Your task to perform on an android device: Go to Android settings Image 0: 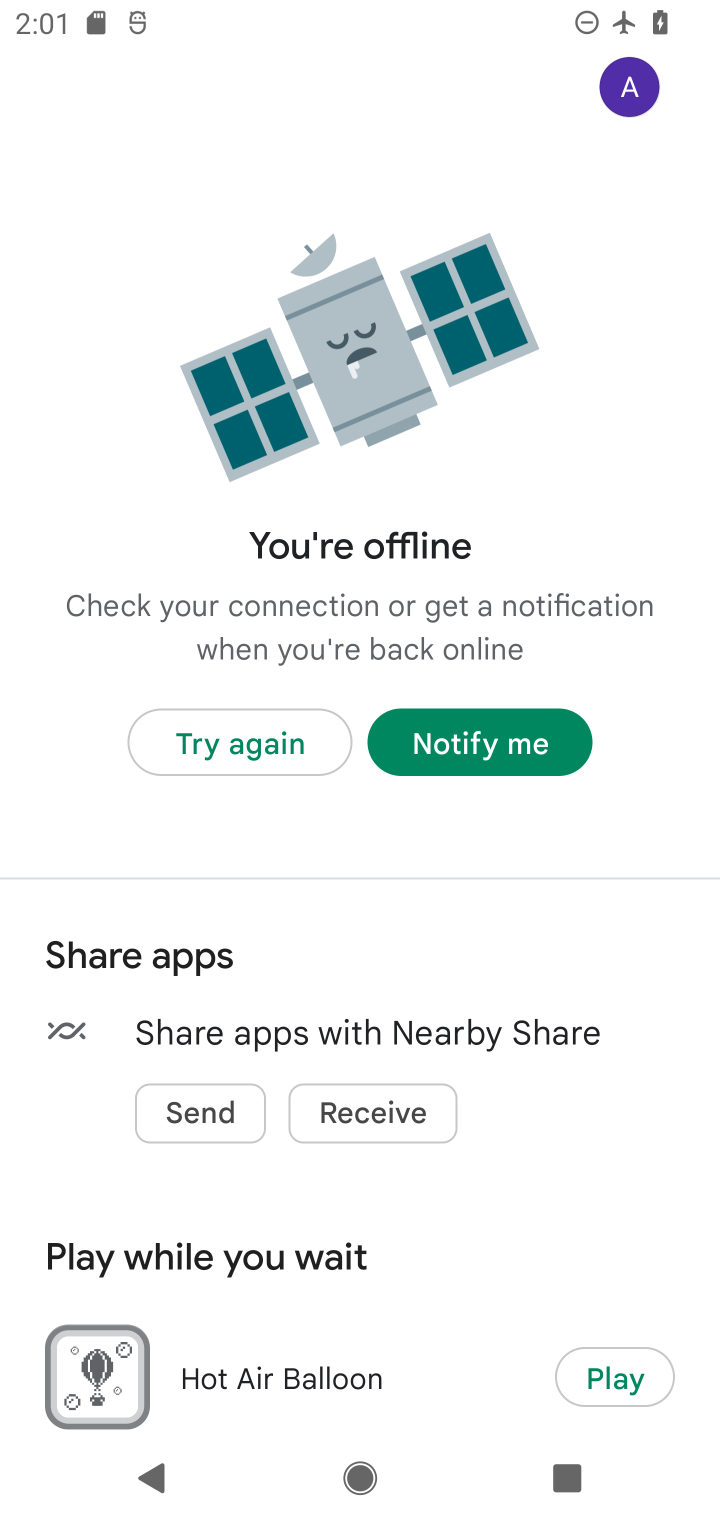
Step 0: press home button
Your task to perform on an android device: Go to Android settings Image 1: 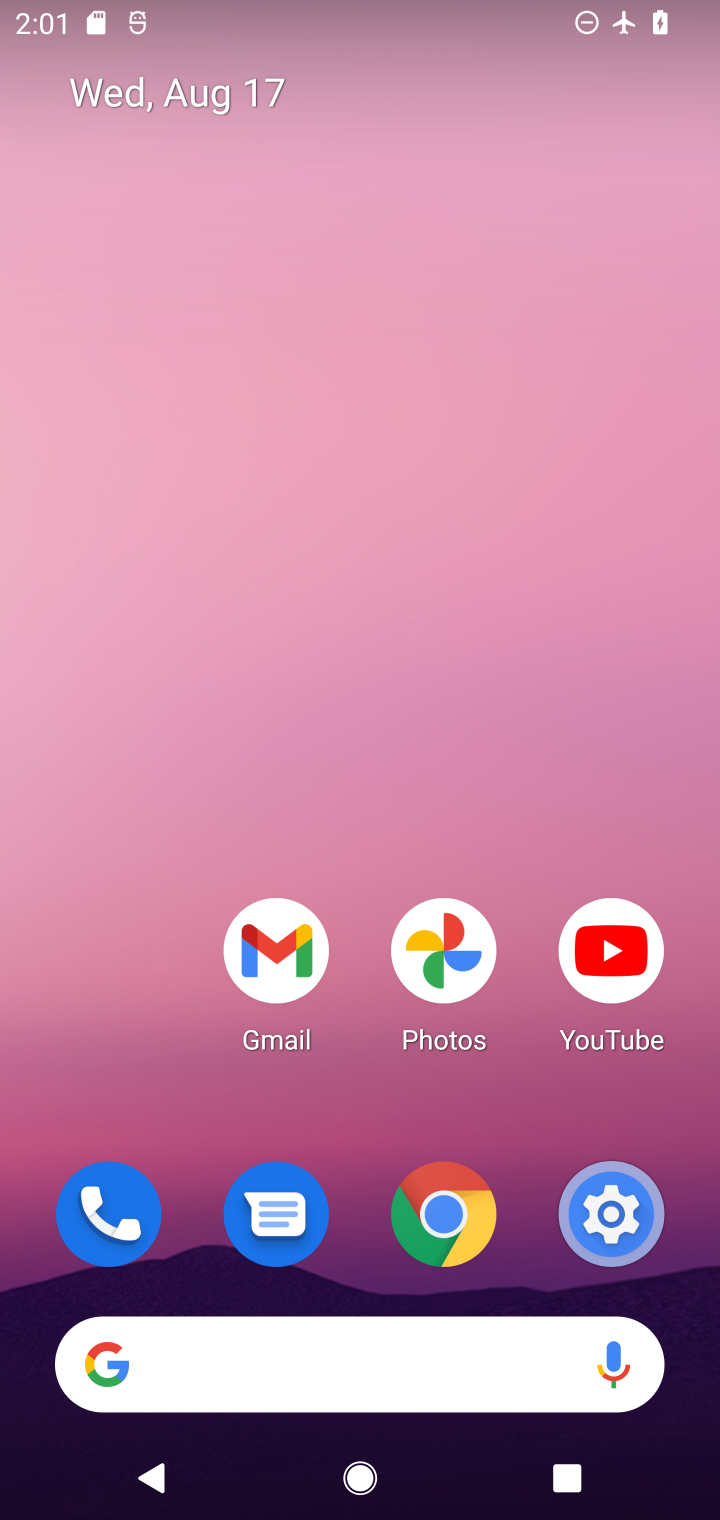
Step 1: click (609, 1204)
Your task to perform on an android device: Go to Android settings Image 2: 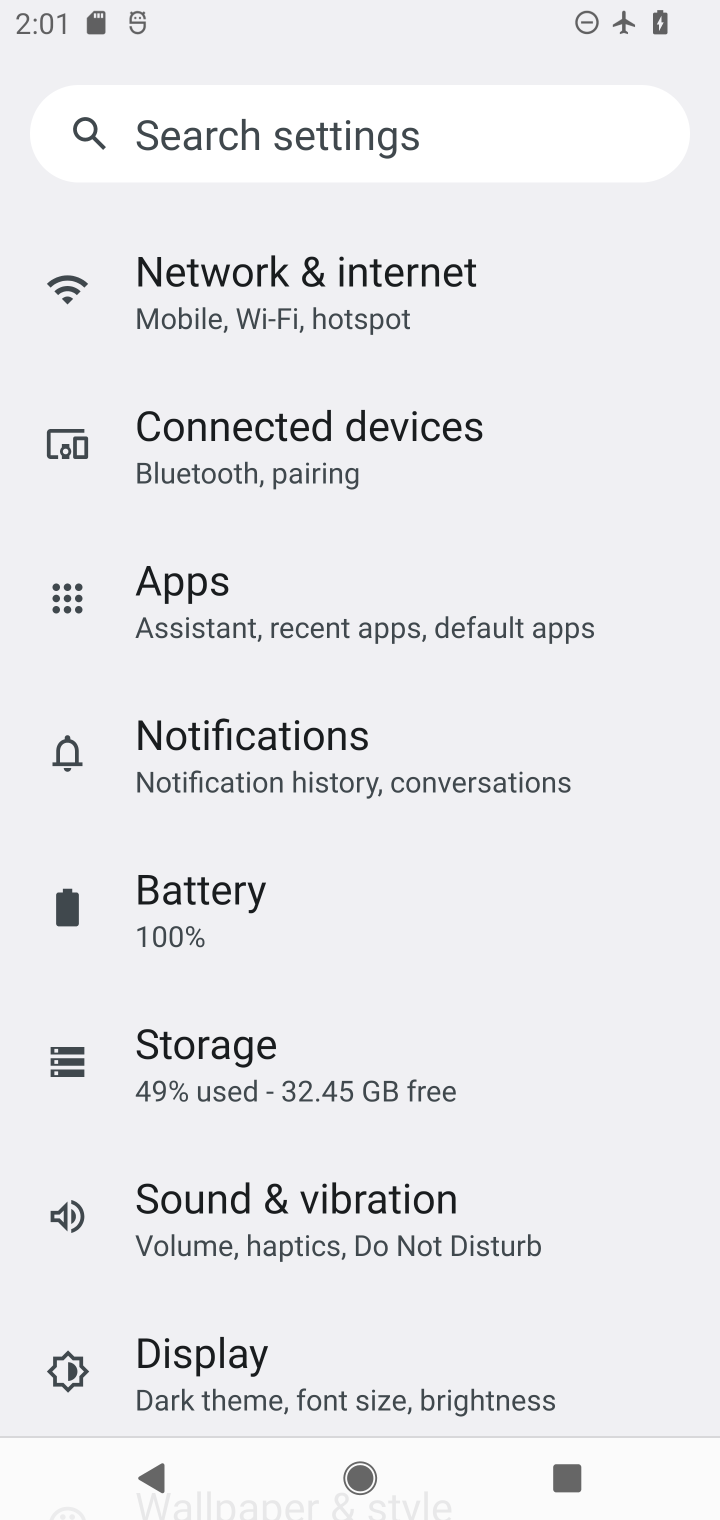
Step 2: task complete